Your task to perform on an android device: Search for Italian restaurants on Maps Image 0: 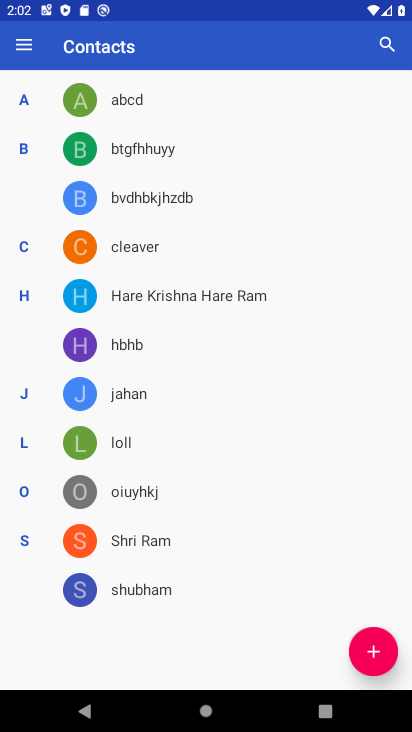
Step 0: press home button
Your task to perform on an android device: Search for Italian restaurants on Maps Image 1: 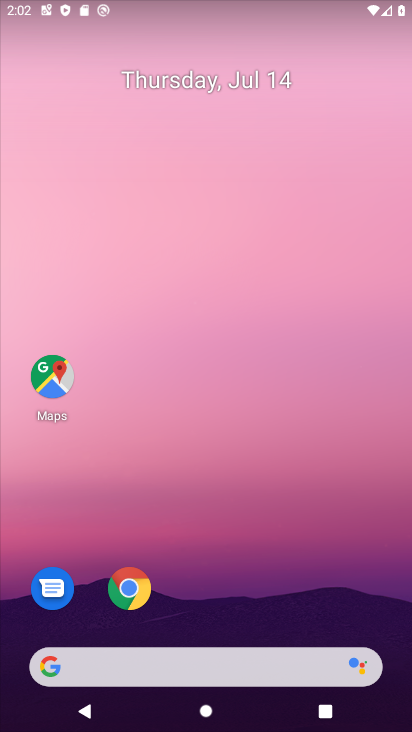
Step 1: drag from (253, 703) to (212, 122)
Your task to perform on an android device: Search for Italian restaurants on Maps Image 2: 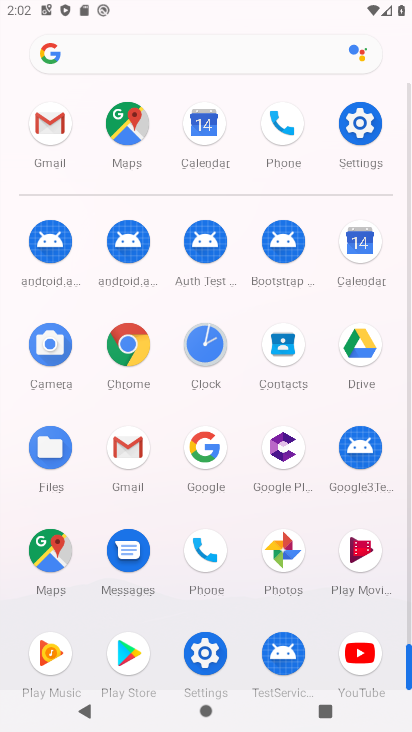
Step 2: click (55, 550)
Your task to perform on an android device: Search for Italian restaurants on Maps Image 3: 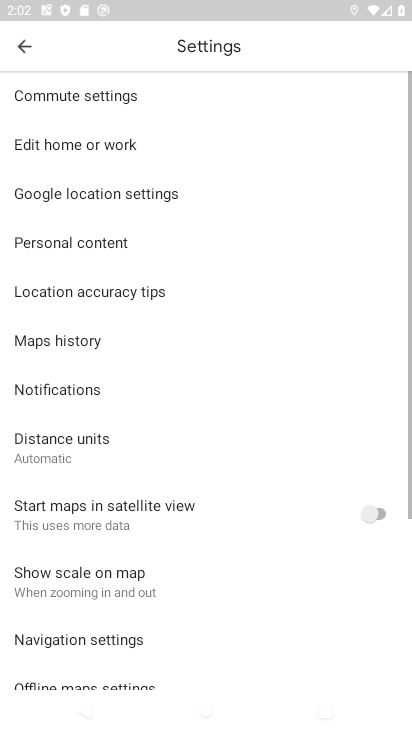
Step 3: click (33, 52)
Your task to perform on an android device: Search for Italian restaurants on Maps Image 4: 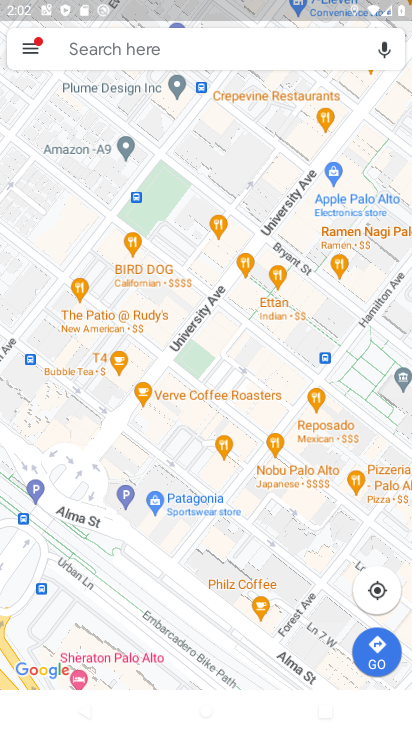
Step 4: click (226, 59)
Your task to perform on an android device: Search for Italian restaurants on Maps Image 5: 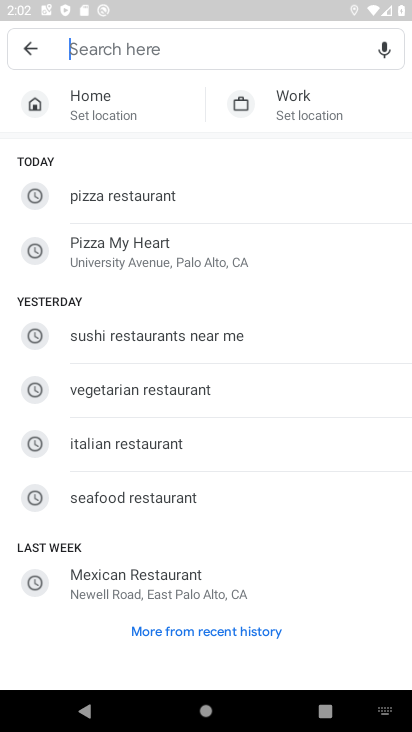
Step 5: click (165, 445)
Your task to perform on an android device: Search for Italian restaurants on Maps Image 6: 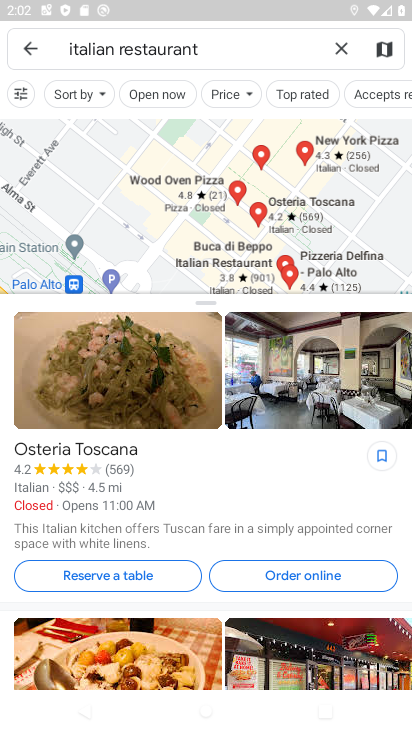
Step 6: task complete